Your task to perform on an android device: What's the weather? Image 0: 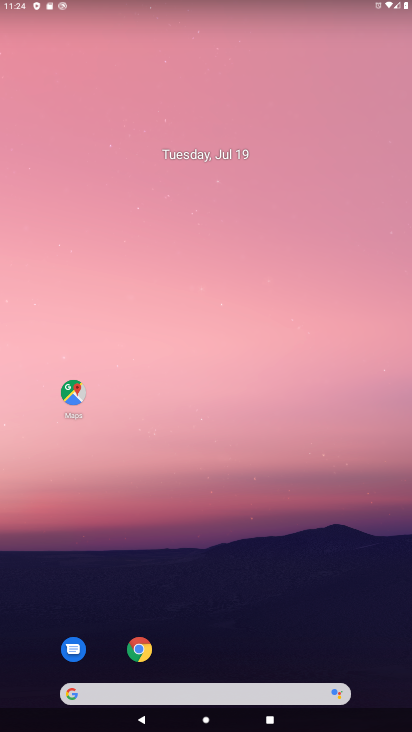
Step 0: drag from (221, 689) to (245, 222)
Your task to perform on an android device: What's the weather? Image 1: 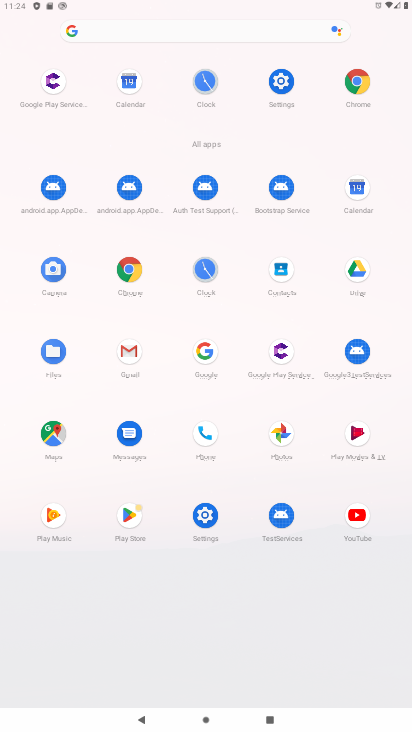
Step 1: click (129, 265)
Your task to perform on an android device: What's the weather? Image 2: 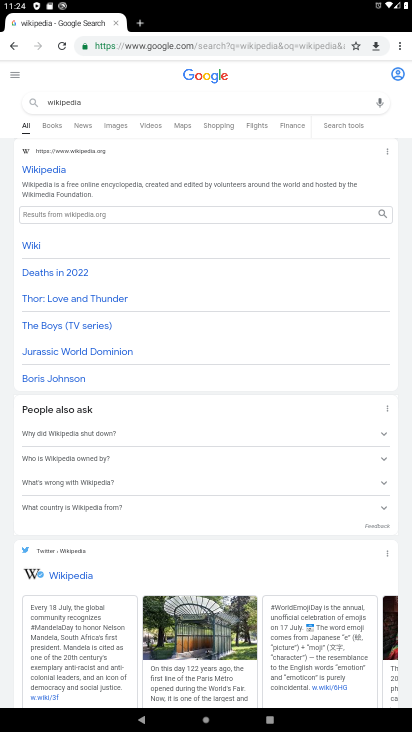
Step 2: click (312, 40)
Your task to perform on an android device: What's the weather? Image 3: 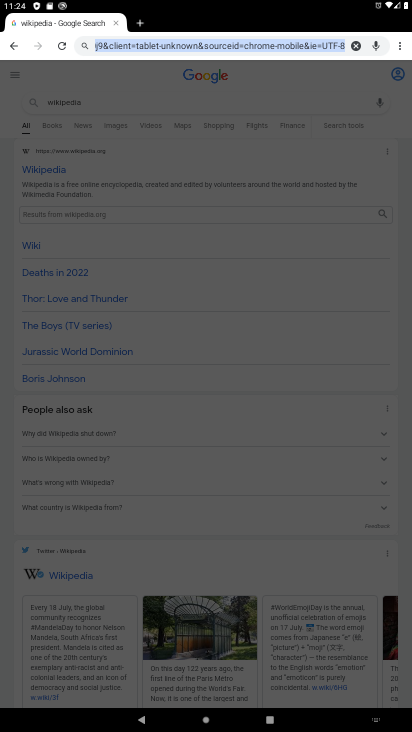
Step 3: click (357, 42)
Your task to perform on an android device: What's the weather? Image 4: 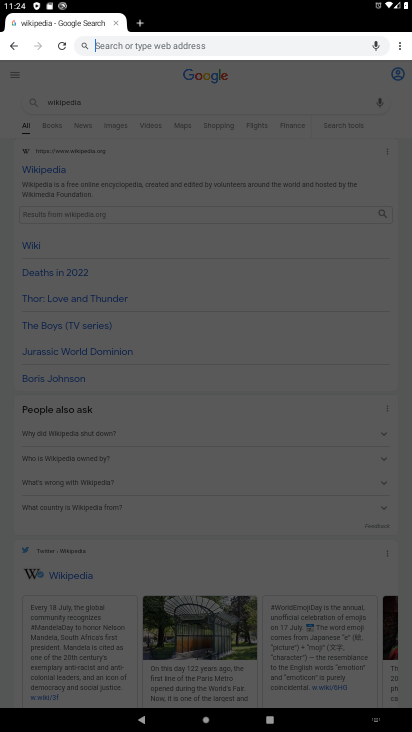
Step 4: type "whats the weather"
Your task to perform on an android device: What's the weather? Image 5: 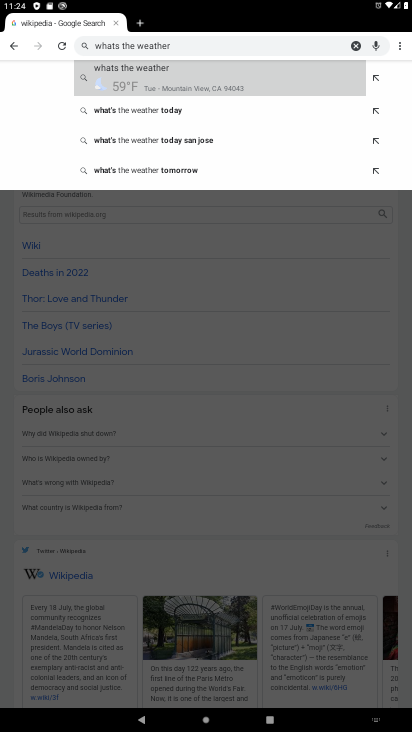
Step 5: click (187, 67)
Your task to perform on an android device: What's the weather? Image 6: 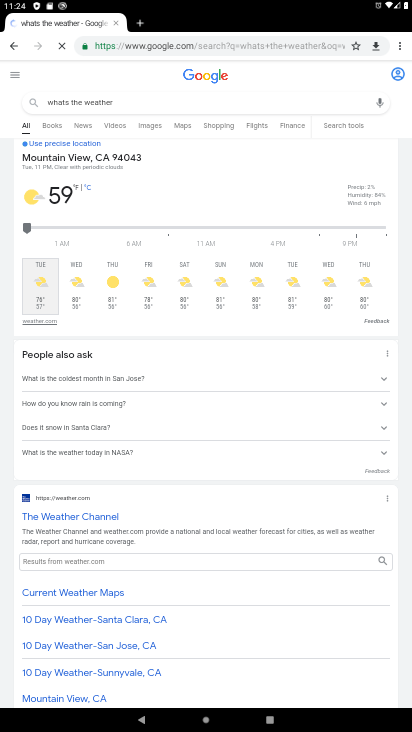
Step 6: task complete